Your task to perform on an android device: Search for logitech g pro on newegg, select the first entry, and add it to the cart. Image 0: 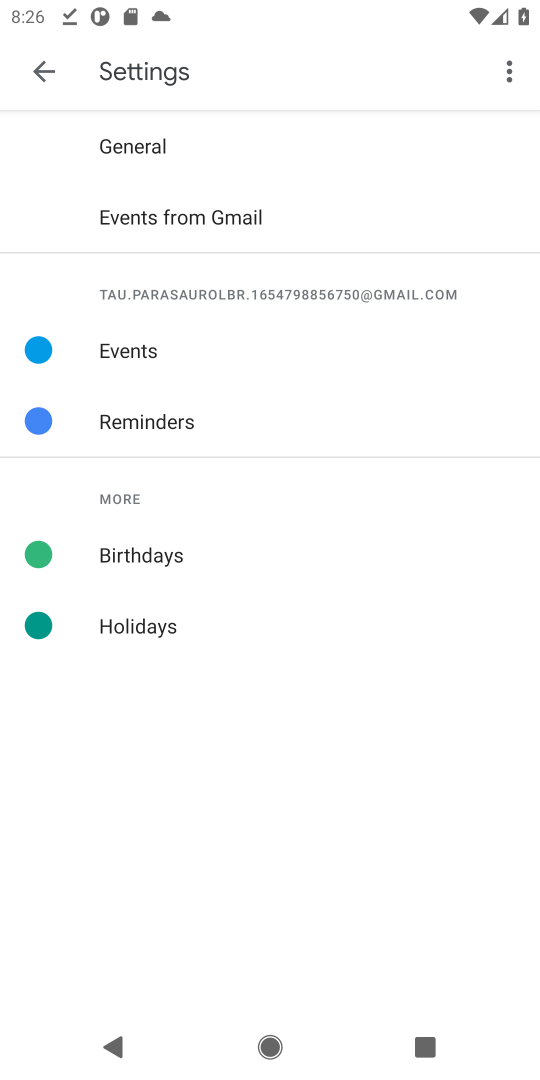
Step 0: press home button
Your task to perform on an android device: Search for logitech g pro on newegg, select the first entry, and add it to the cart. Image 1: 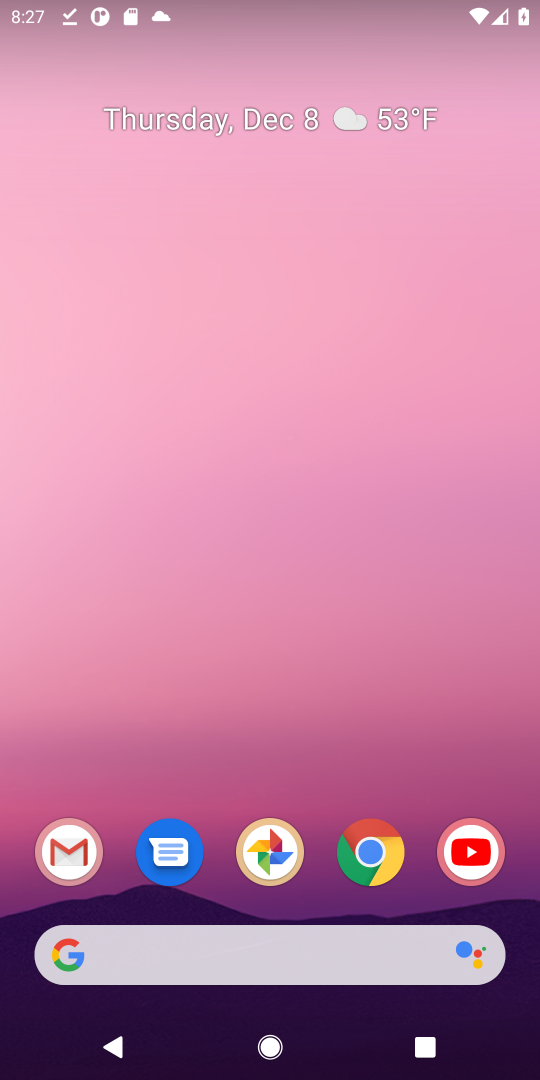
Step 1: click (253, 957)
Your task to perform on an android device: Search for logitech g pro on newegg, select the first entry, and add it to the cart. Image 2: 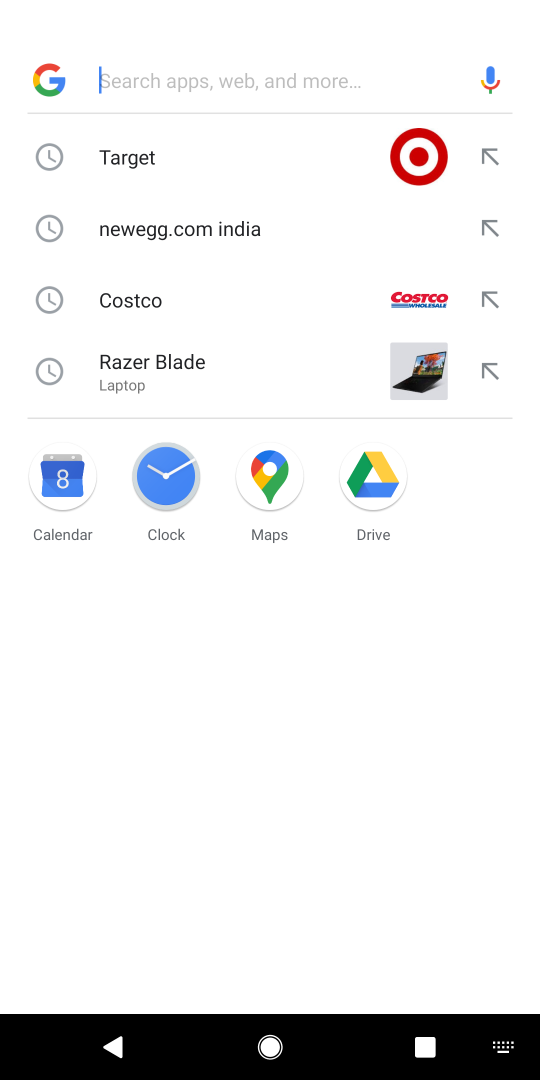
Step 2: type "logitech g pro"
Your task to perform on an android device: Search for logitech g pro on newegg, select the first entry, and add it to the cart. Image 3: 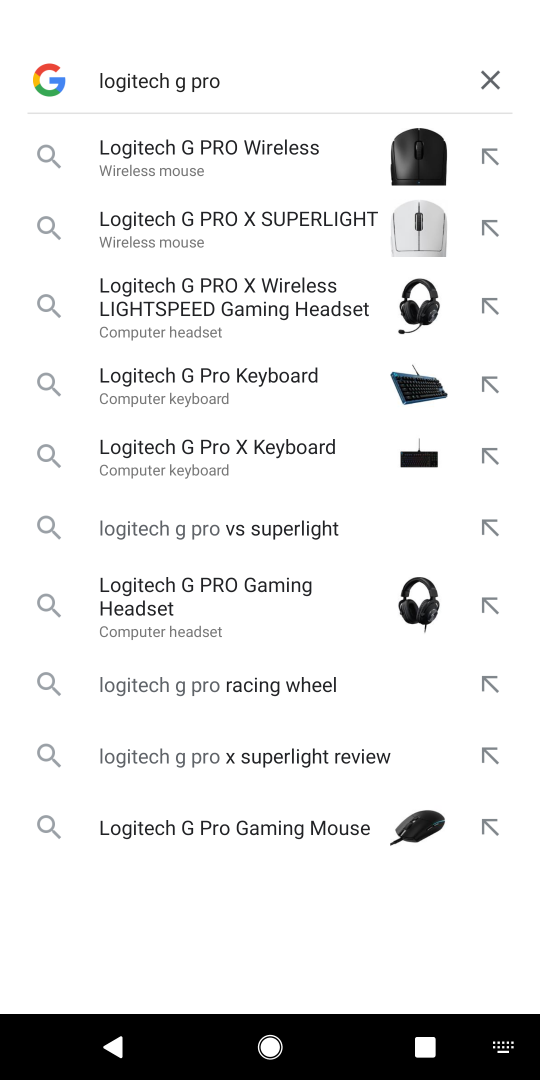
Step 3: click (202, 160)
Your task to perform on an android device: Search for logitech g pro on newegg, select the first entry, and add it to the cart. Image 4: 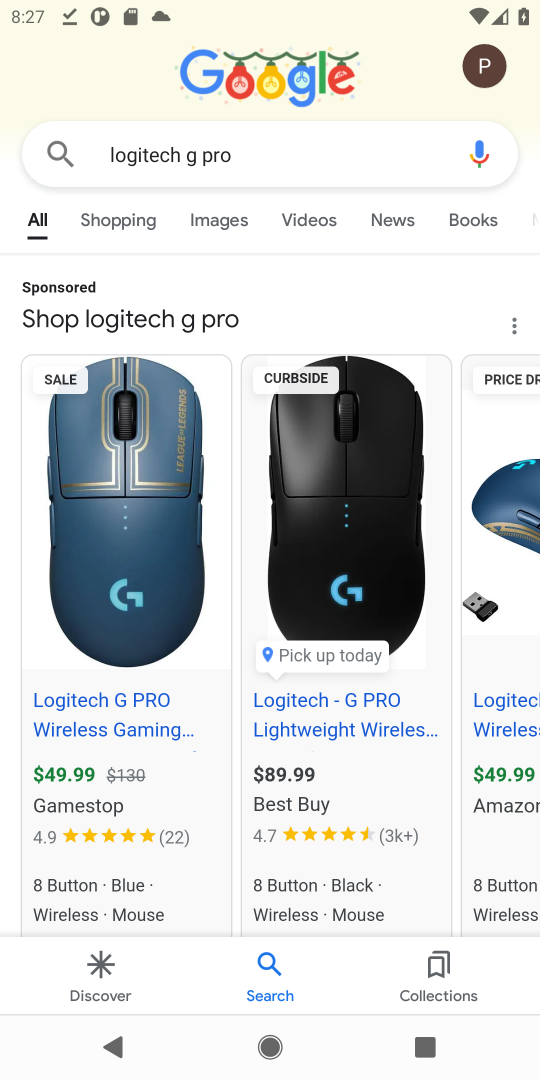
Step 4: task complete